Your task to perform on an android device: Is it going to rain today? Image 0: 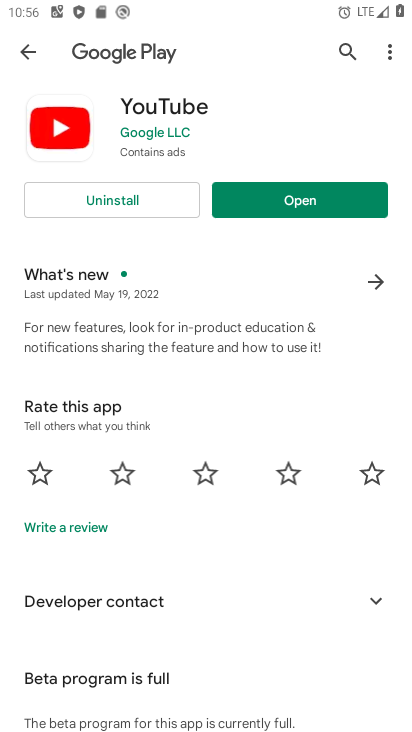
Step 0: press home button
Your task to perform on an android device: Is it going to rain today? Image 1: 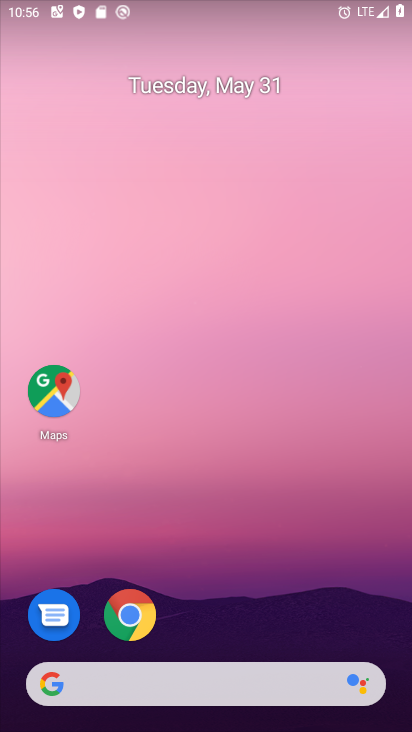
Step 1: drag from (220, 608) to (251, 21)
Your task to perform on an android device: Is it going to rain today? Image 2: 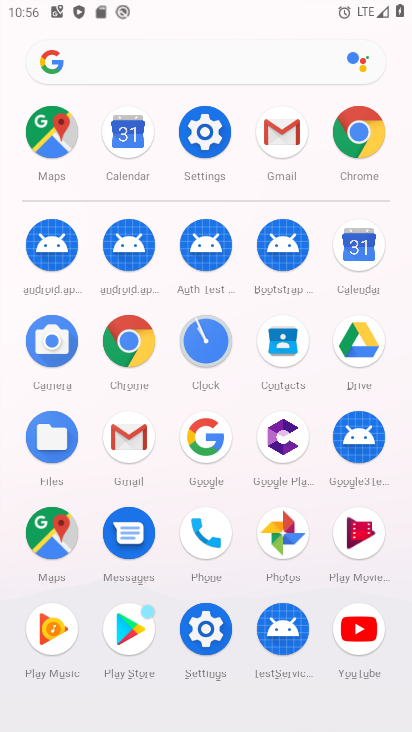
Step 2: click (53, 63)
Your task to perform on an android device: Is it going to rain today? Image 3: 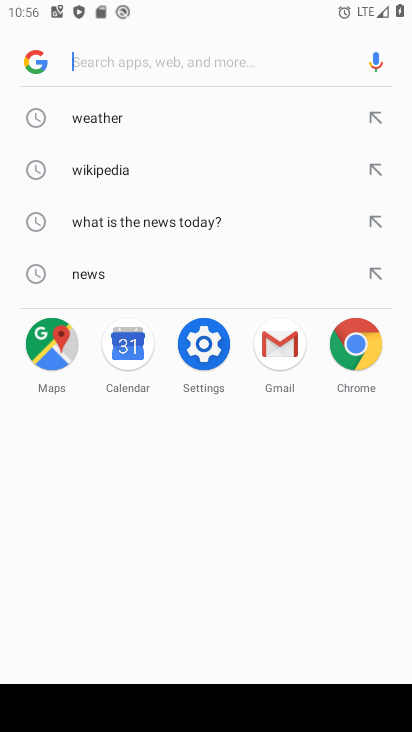
Step 3: click (53, 63)
Your task to perform on an android device: Is it going to rain today? Image 4: 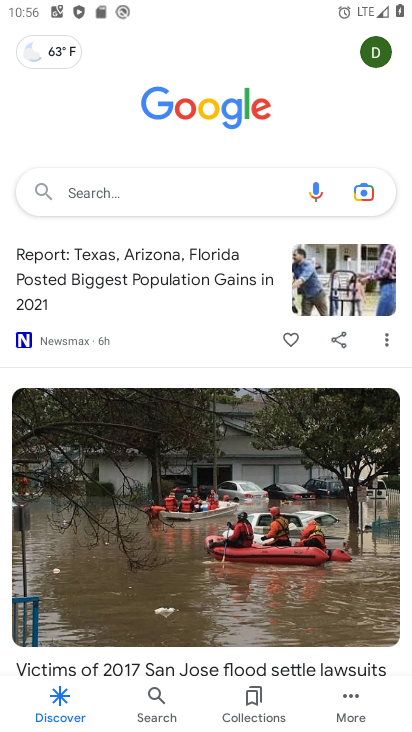
Step 4: click (53, 62)
Your task to perform on an android device: Is it going to rain today? Image 5: 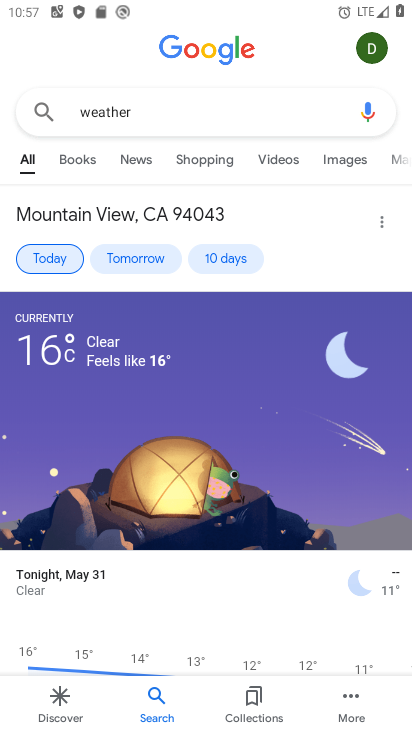
Step 5: task complete